Your task to perform on an android device: Go to Yahoo.com Image 0: 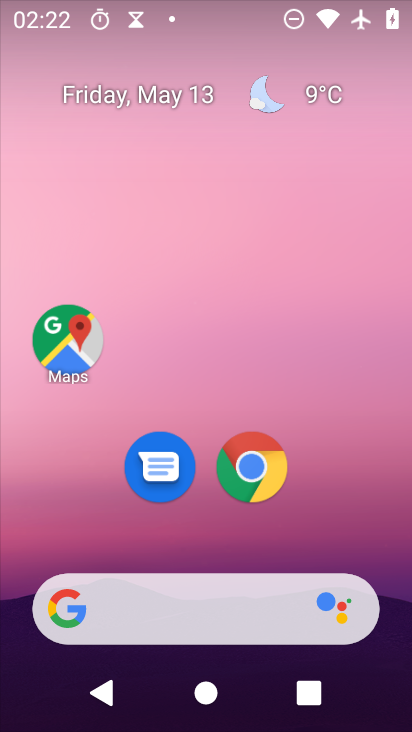
Step 0: click (257, 471)
Your task to perform on an android device: Go to Yahoo.com Image 1: 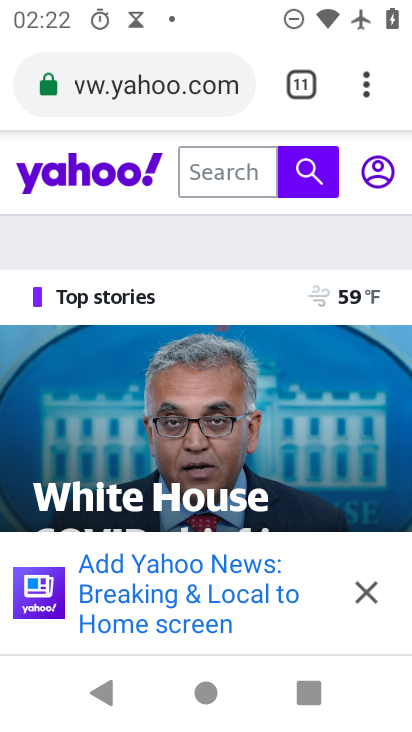
Step 1: task complete